Your task to perform on an android device: open device folders in google photos Image 0: 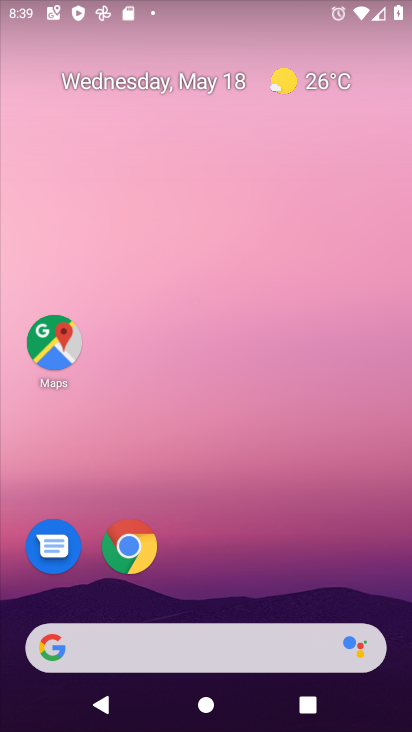
Step 0: drag from (398, 631) to (298, 97)
Your task to perform on an android device: open device folders in google photos Image 1: 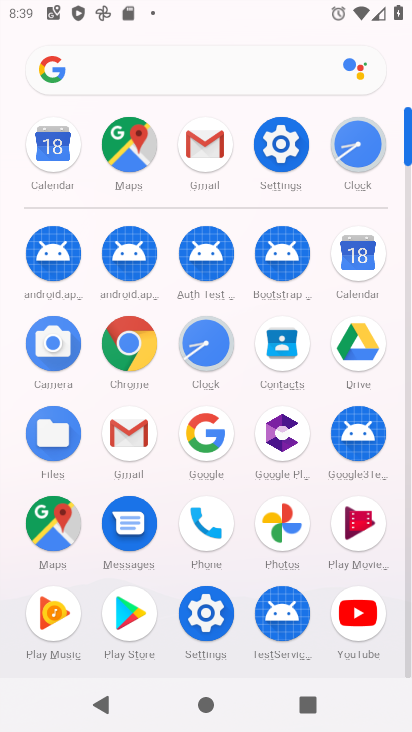
Step 1: click (293, 531)
Your task to perform on an android device: open device folders in google photos Image 2: 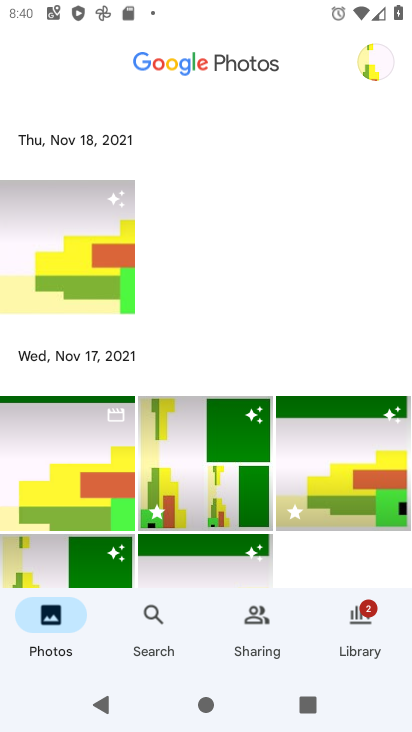
Step 2: task complete